Your task to perform on an android device: turn on javascript in the chrome app Image 0: 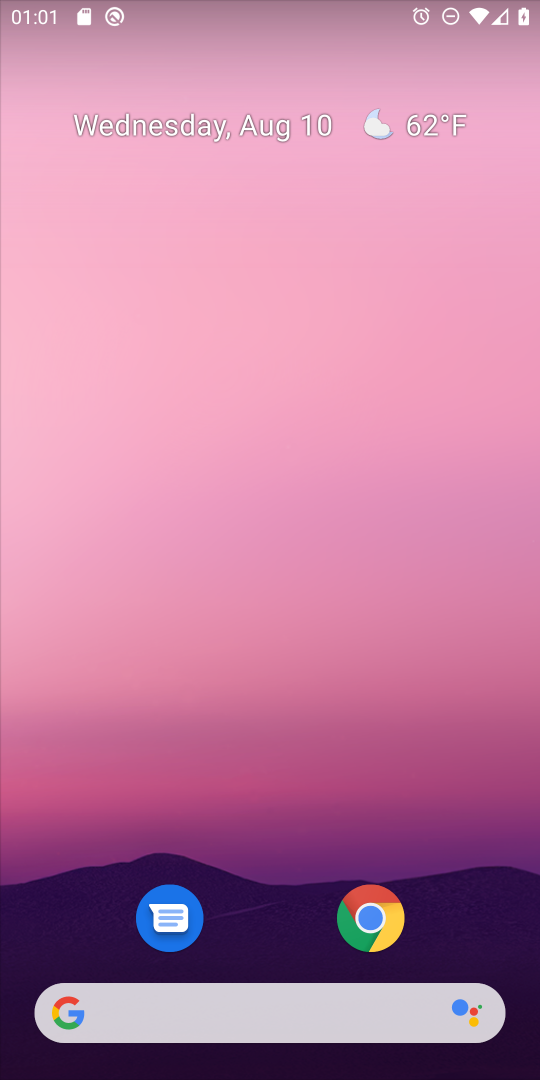
Step 0: drag from (198, 893) to (249, 141)
Your task to perform on an android device: turn on javascript in the chrome app Image 1: 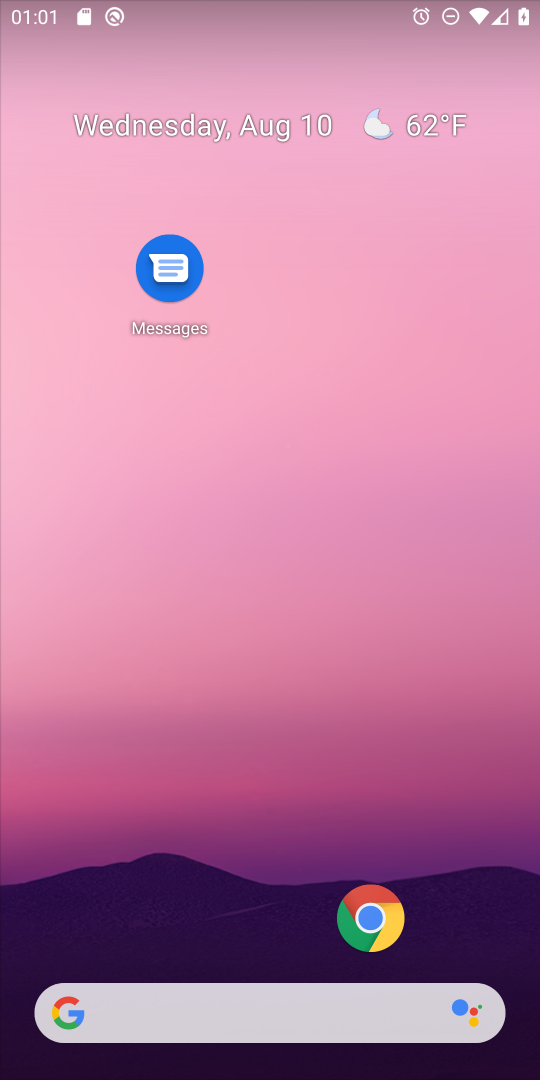
Step 1: drag from (261, 946) to (376, 139)
Your task to perform on an android device: turn on javascript in the chrome app Image 2: 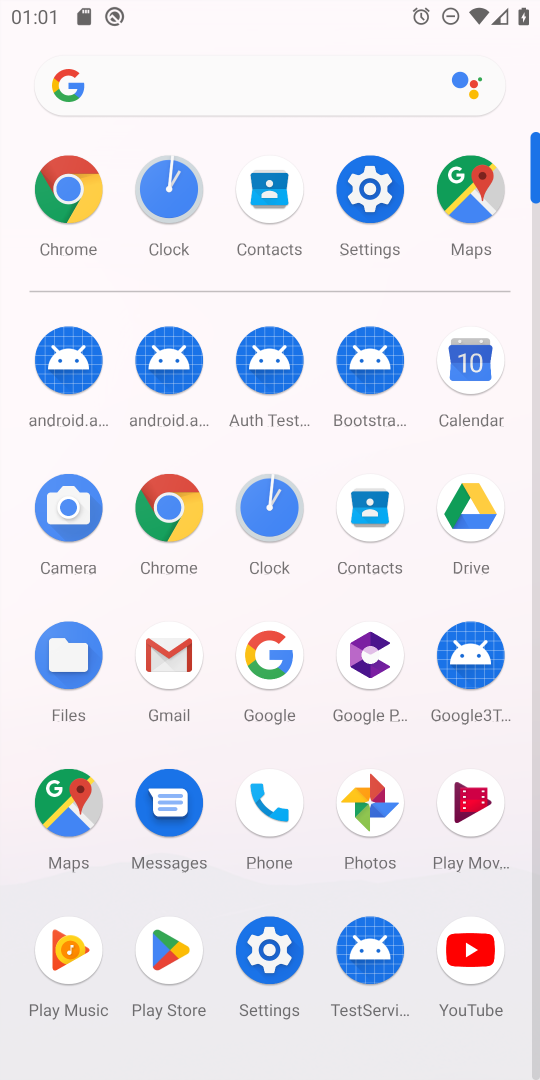
Step 2: click (166, 515)
Your task to perform on an android device: turn on javascript in the chrome app Image 3: 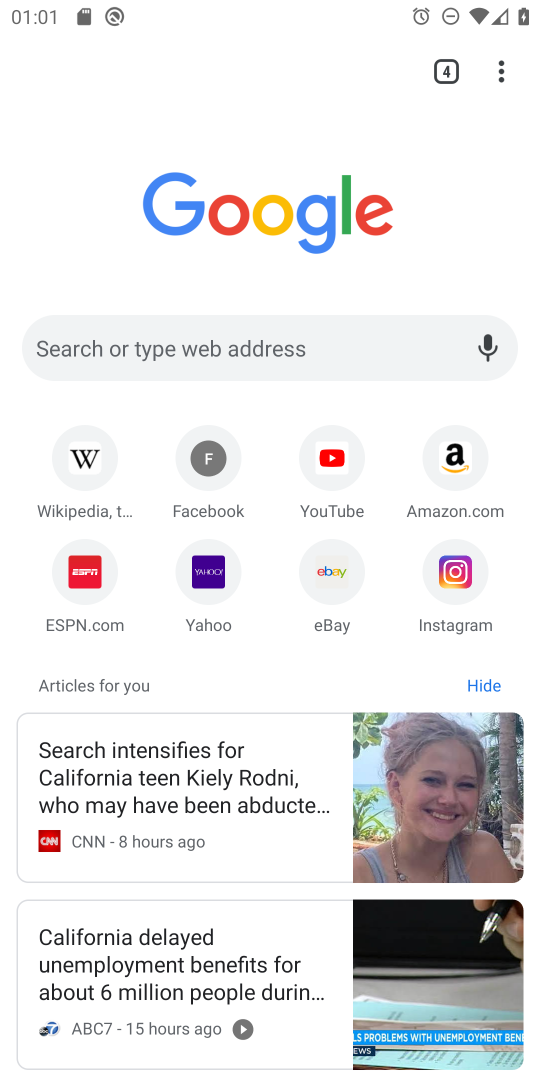
Step 3: drag from (509, 71) to (303, 680)
Your task to perform on an android device: turn on javascript in the chrome app Image 4: 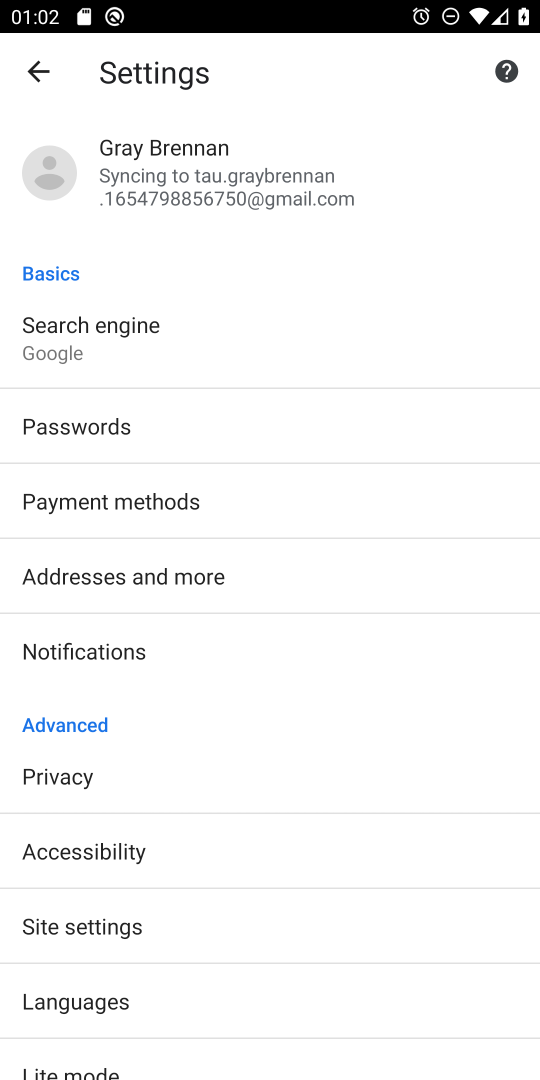
Step 4: click (113, 929)
Your task to perform on an android device: turn on javascript in the chrome app Image 5: 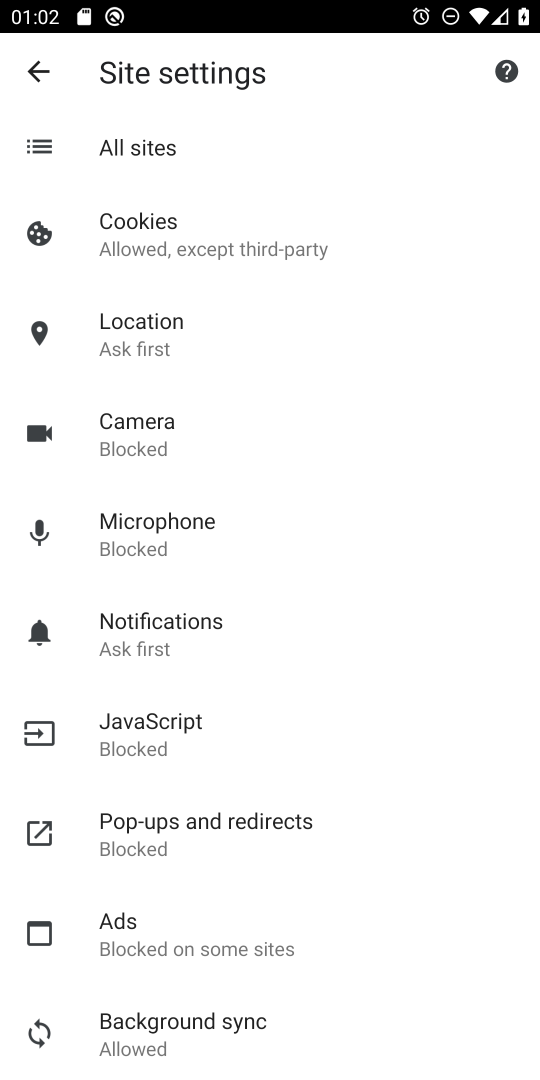
Step 5: click (190, 710)
Your task to perform on an android device: turn on javascript in the chrome app Image 6: 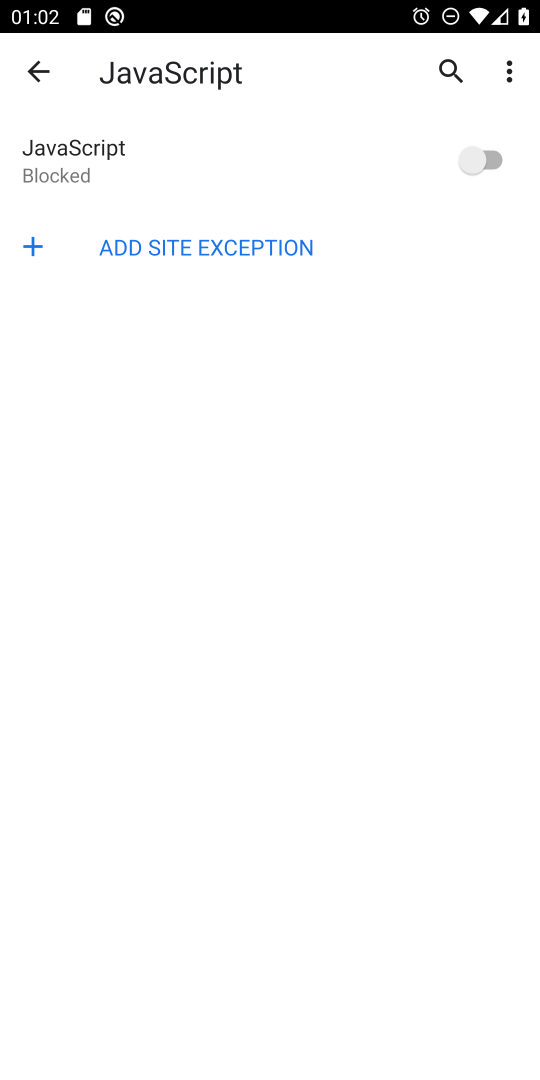
Step 6: click (459, 159)
Your task to perform on an android device: turn on javascript in the chrome app Image 7: 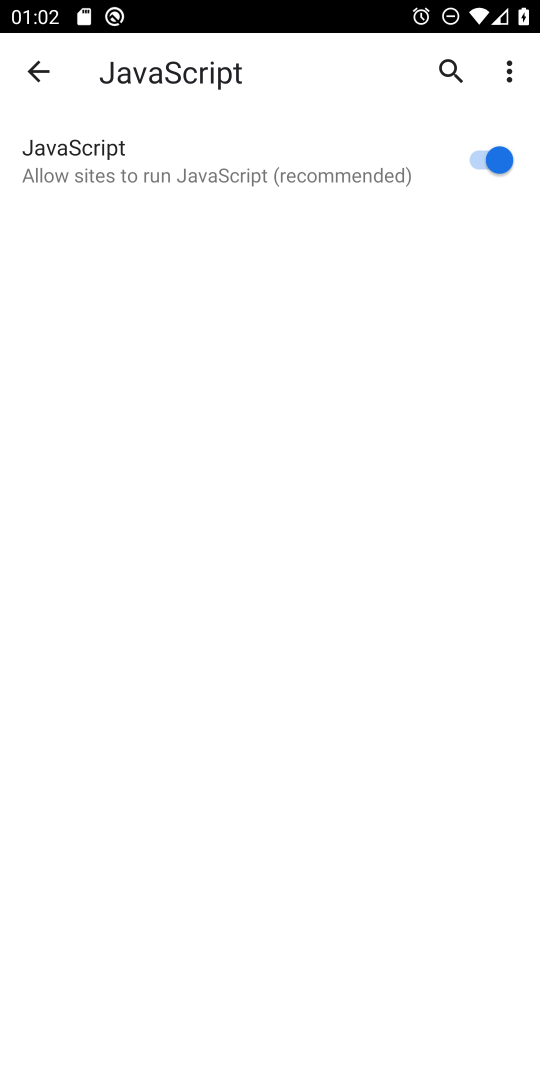
Step 7: task complete